Your task to perform on an android device: open a bookmark in the chrome app Image 0: 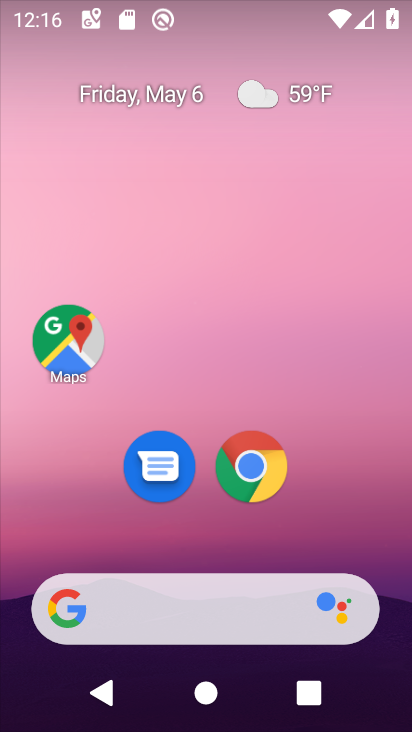
Step 0: drag from (339, 502) to (303, 193)
Your task to perform on an android device: open a bookmark in the chrome app Image 1: 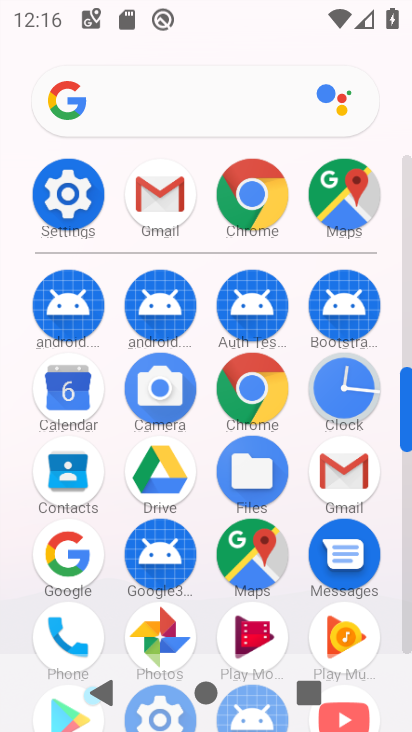
Step 1: click (256, 202)
Your task to perform on an android device: open a bookmark in the chrome app Image 2: 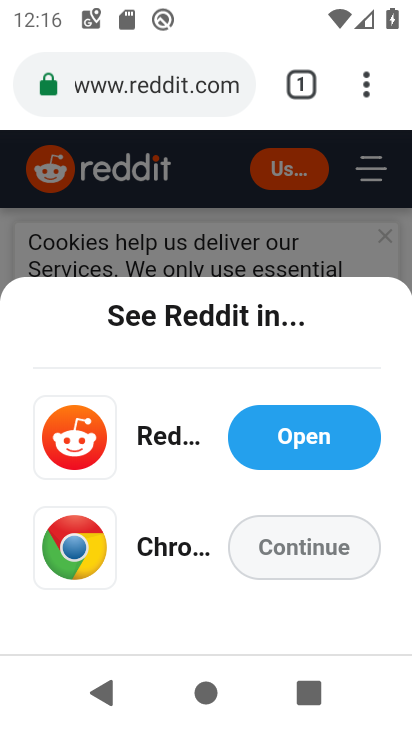
Step 2: drag from (367, 88) to (166, 317)
Your task to perform on an android device: open a bookmark in the chrome app Image 3: 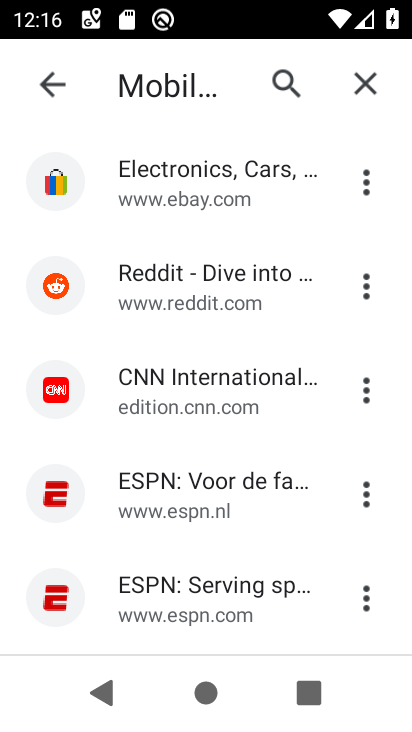
Step 3: click (194, 383)
Your task to perform on an android device: open a bookmark in the chrome app Image 4: 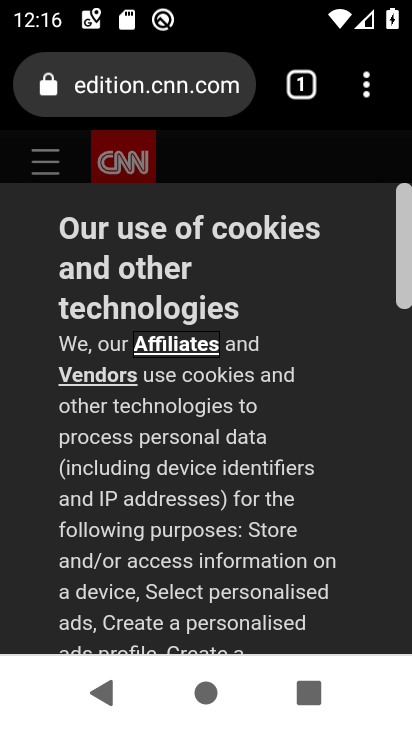
Step 4: task complete